Your task to perform on an android device: find which apps use the phone's location Image 0: 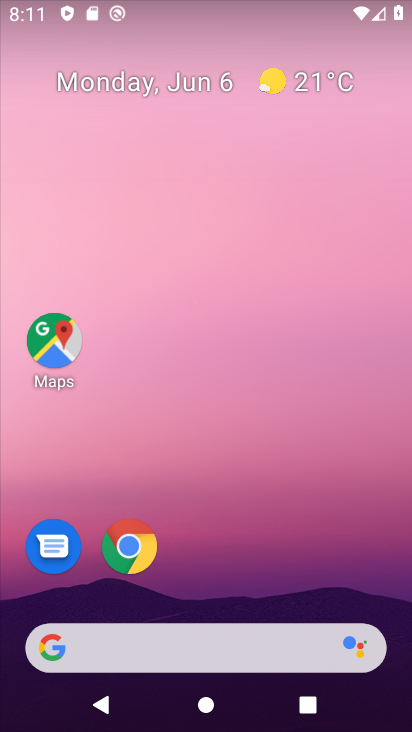
Step 0: drag from (283, 586) to (162, 9)
Your task to perform on an android device: find which apps use the phone's location Image 1: 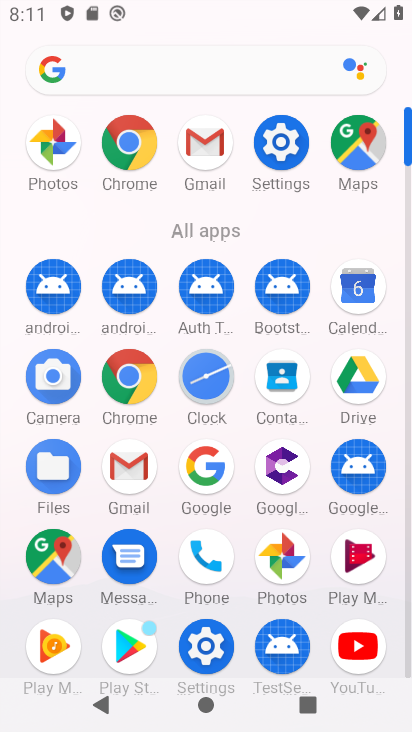
Step 1: click (291, 153)
Your task to perform on an android device: find which apps use the phone's location Image 2: 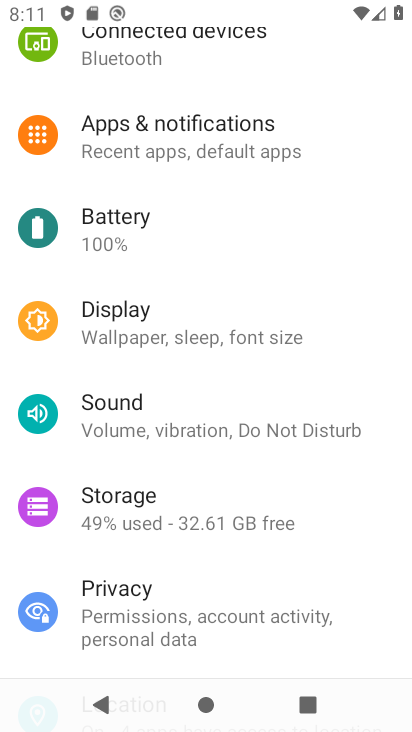
Step 2: drag from (235, 303) to (273, 613)
Your task to perform on an android device: find which apps use the phone's location Image 3: 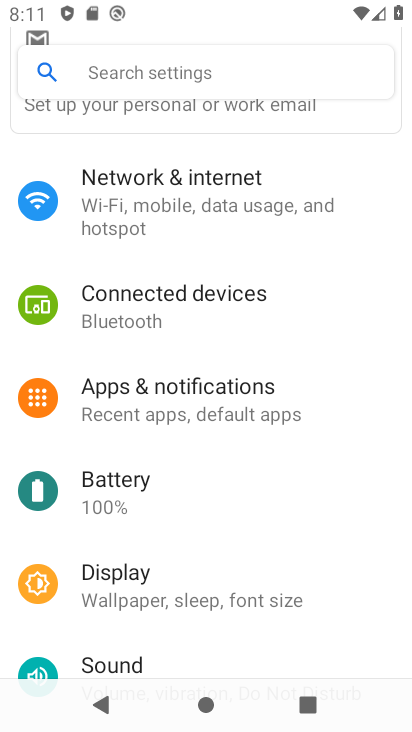
Step 3: drag from (193, 604) to (260, 106)
Your task to perform on an android device: find which apps use the phone's location Image 4: 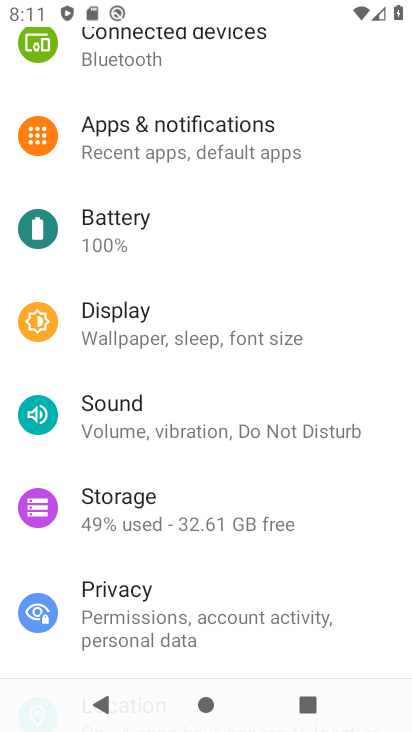
Step 4: drag from (191, 600) to (253, 187)
Your task to perform on an android device: find which apps use the phone's location Image 5: 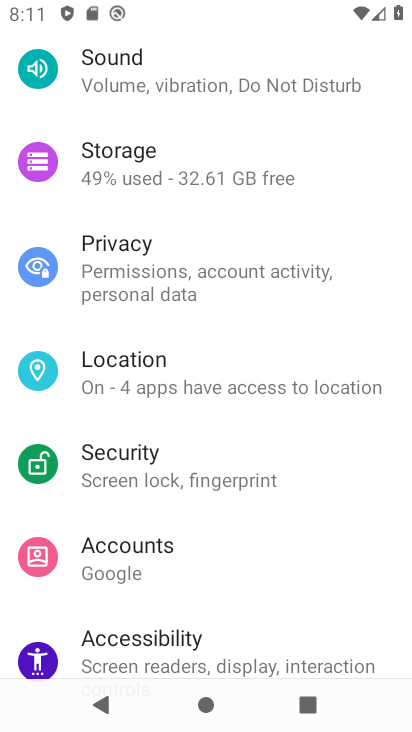
Step 5: click (240, 397)
Your task to perform on an android device: find which apps use the phone's location Image 6: 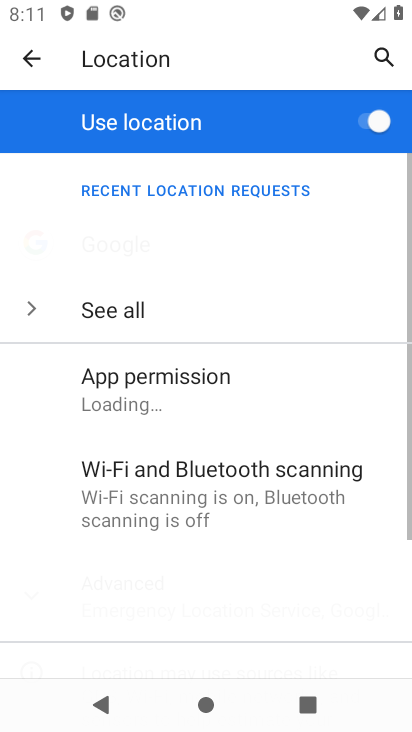
Step 6: task complete